Your task to perform on an android device: Open Chrome and go to settings Image 0: 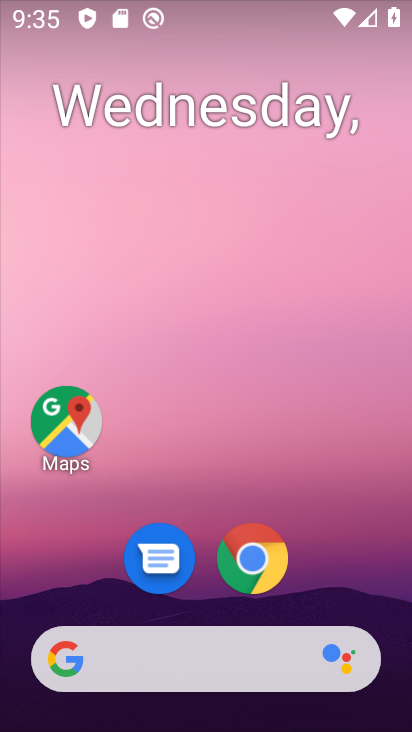
Step 0: click (261, 556)
Your task to perform on an android device: Open Chrome and go to settings Image 1: 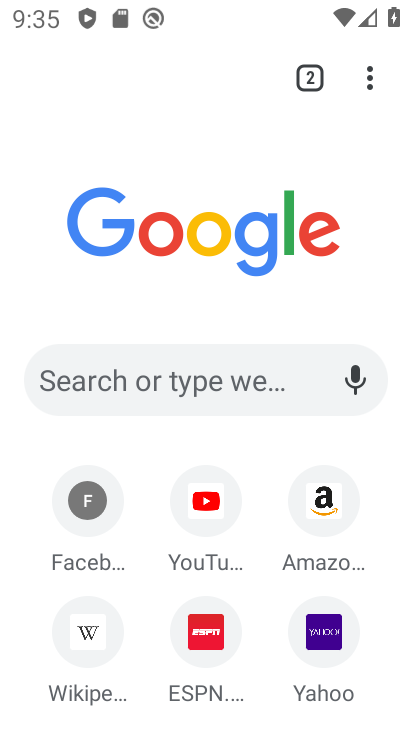
Step 1: click (364, 84)
Your task to perform on an android device: Open Chrome and go to settings Image 2: 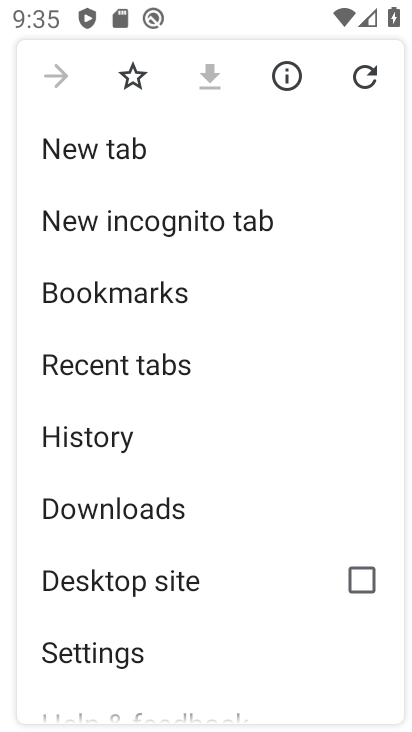
Step 2: click (121, 654)
Your task to perform on an android device: Open Chrome and go to settings Image 3: 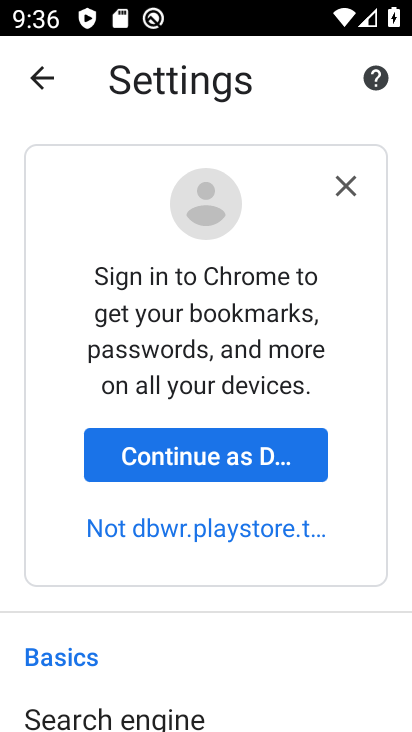
Step 3: task complete